Your task to perform on an android device: Google the capital of Canada Image 0: 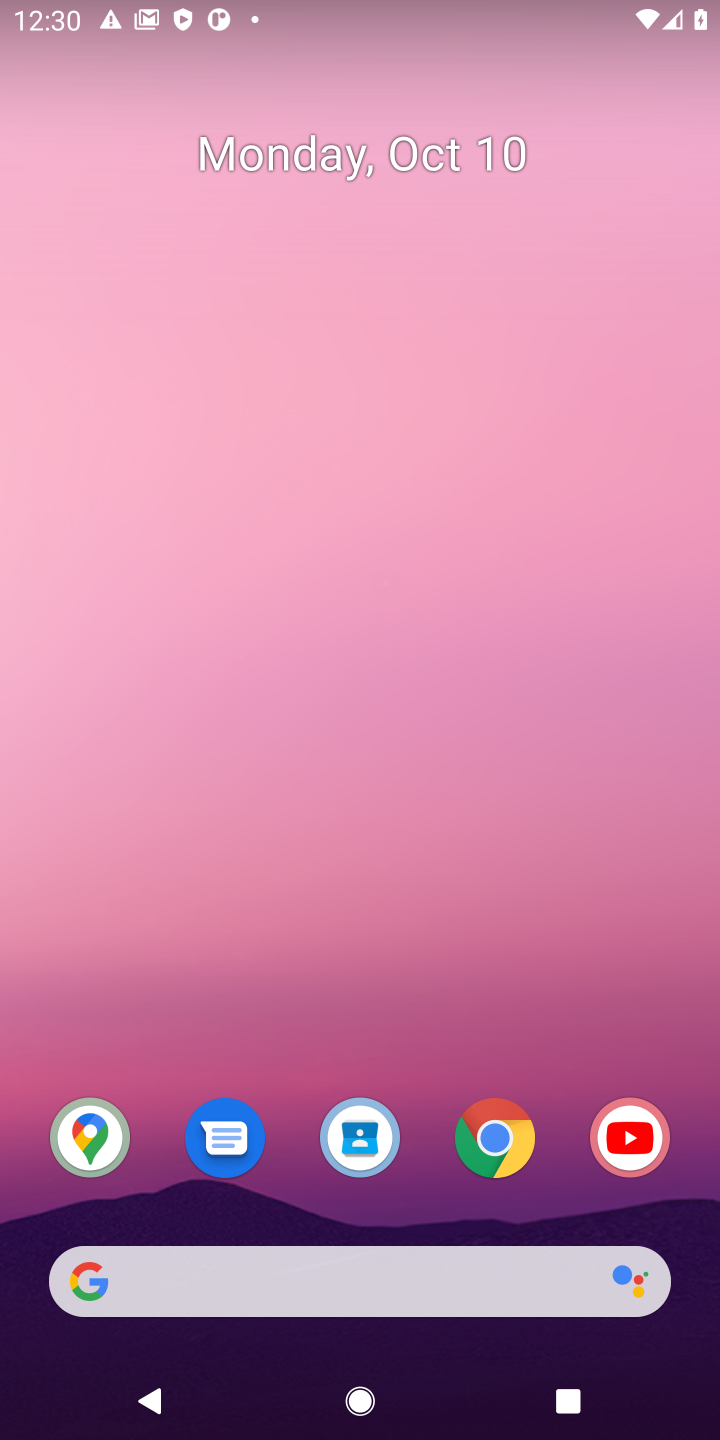
Step 0: click (506, 1168)
Your task to perform on an android device: Google the capital of Canada Image 1: 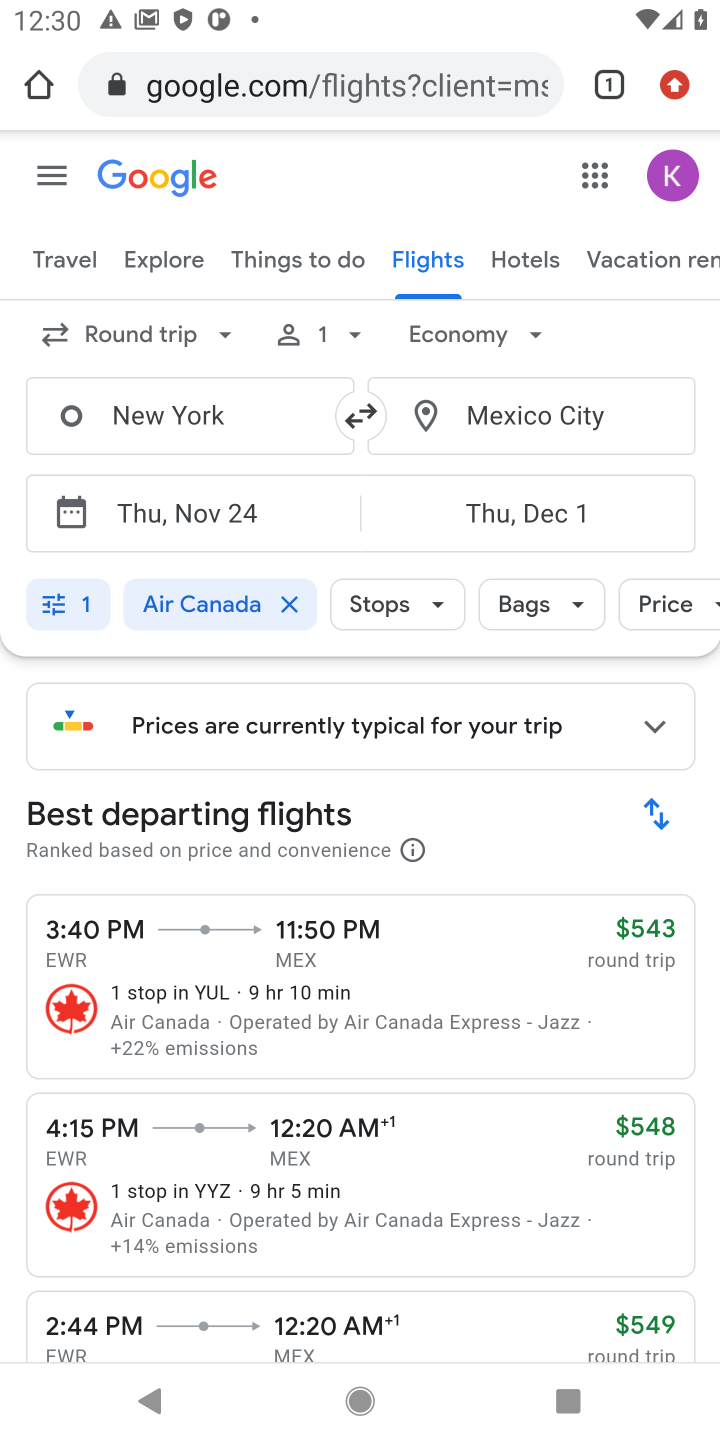
Step 1: click (123, 178)
Your task to perform on an android device: Google the capital of Canada Image 2: 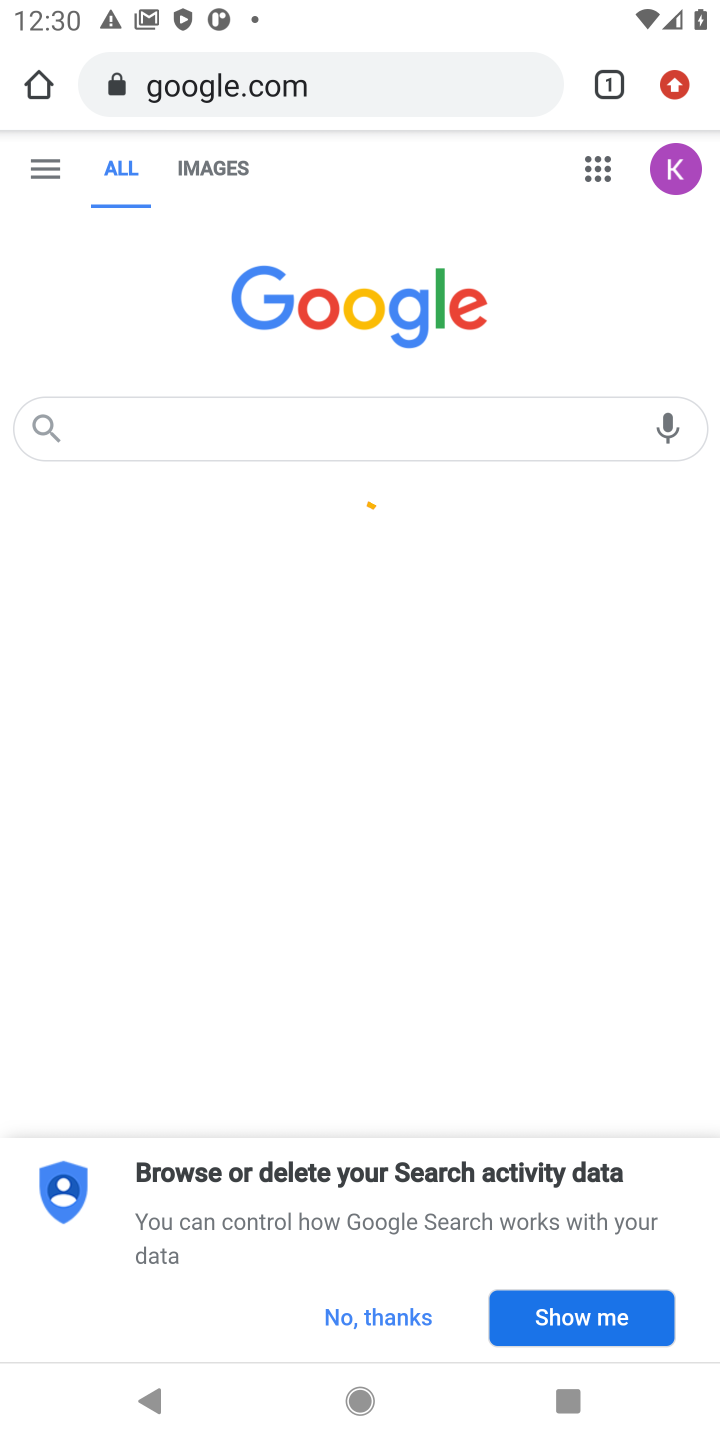
Step 2: click (337, 440)
Your task to perform on an android device: Google the capital of Canada Image 3: 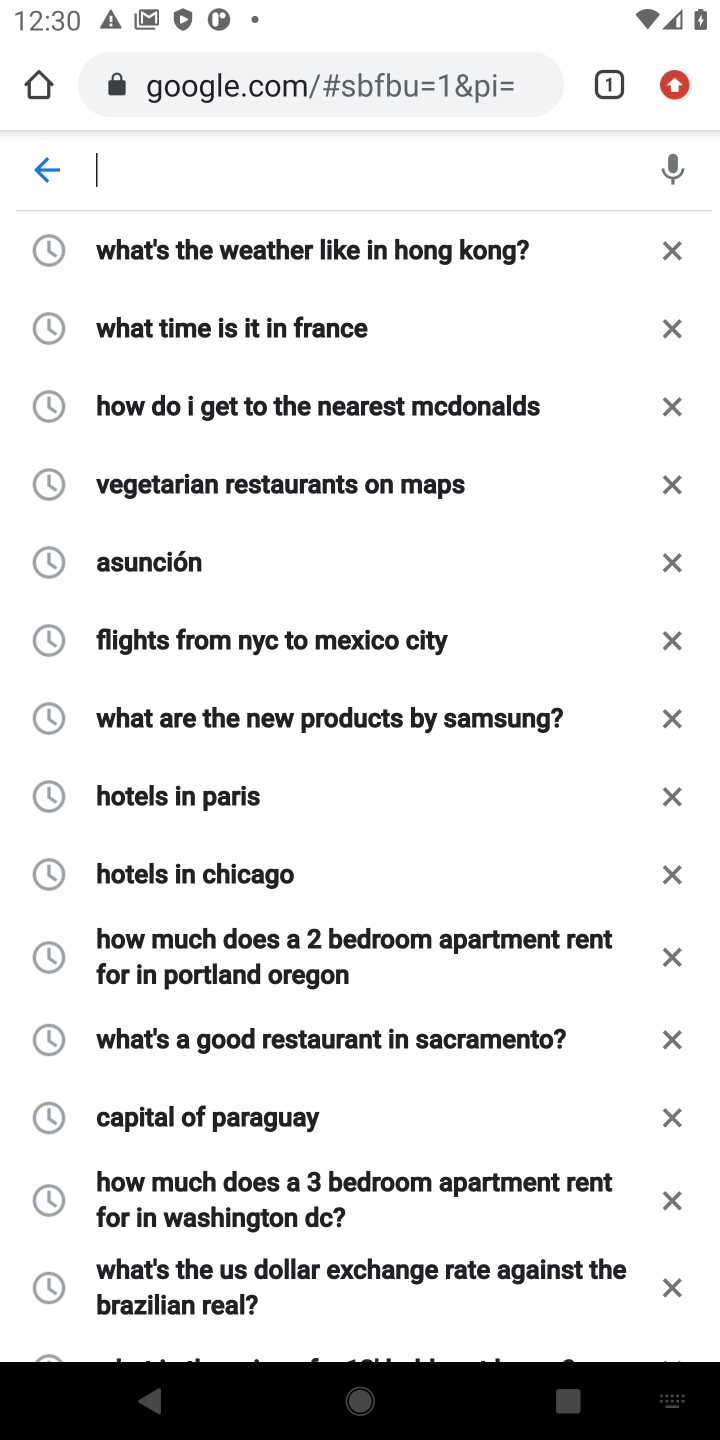
Step 3: type "capital of Canada"
Your task to perform on an android device: Google the capital of Canada Image 4: 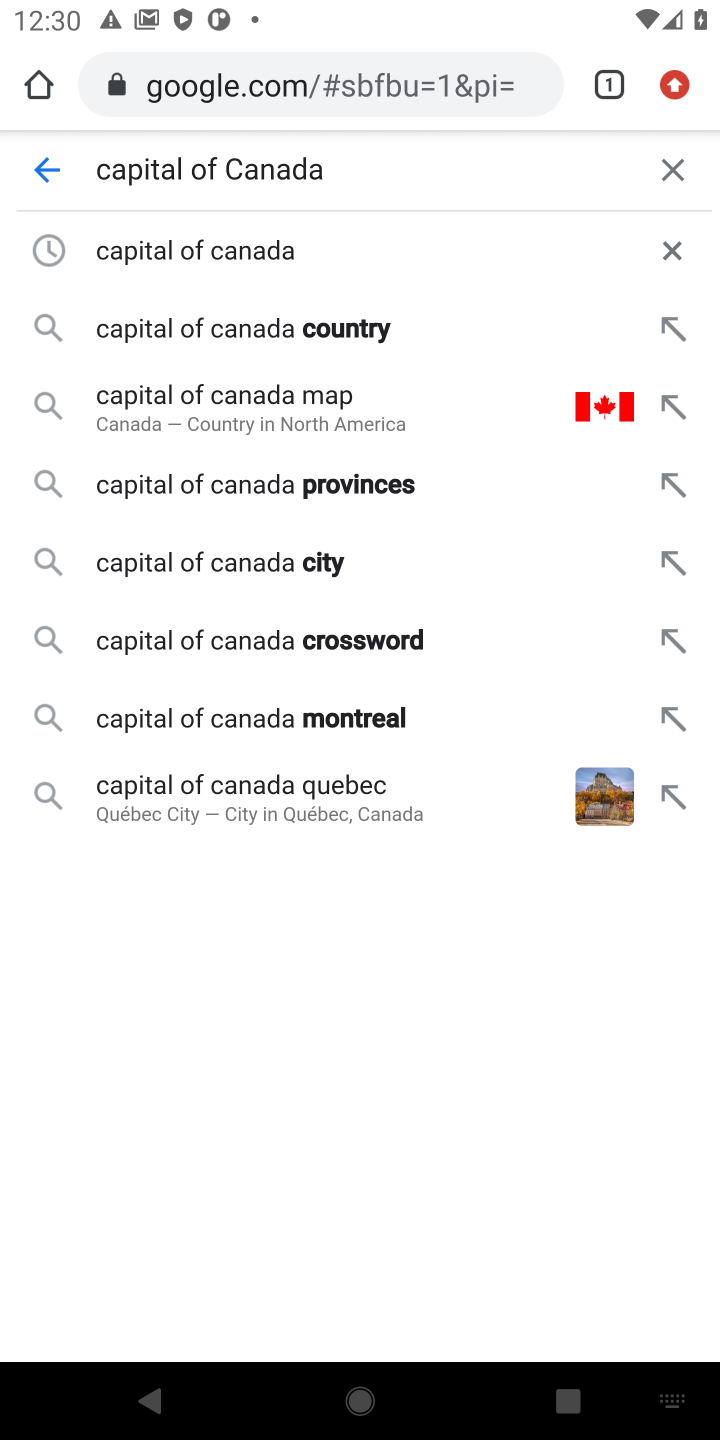
Step 4: click (215, 260)
Your task to perform on an android device: Google the capital of Canada Image 5: 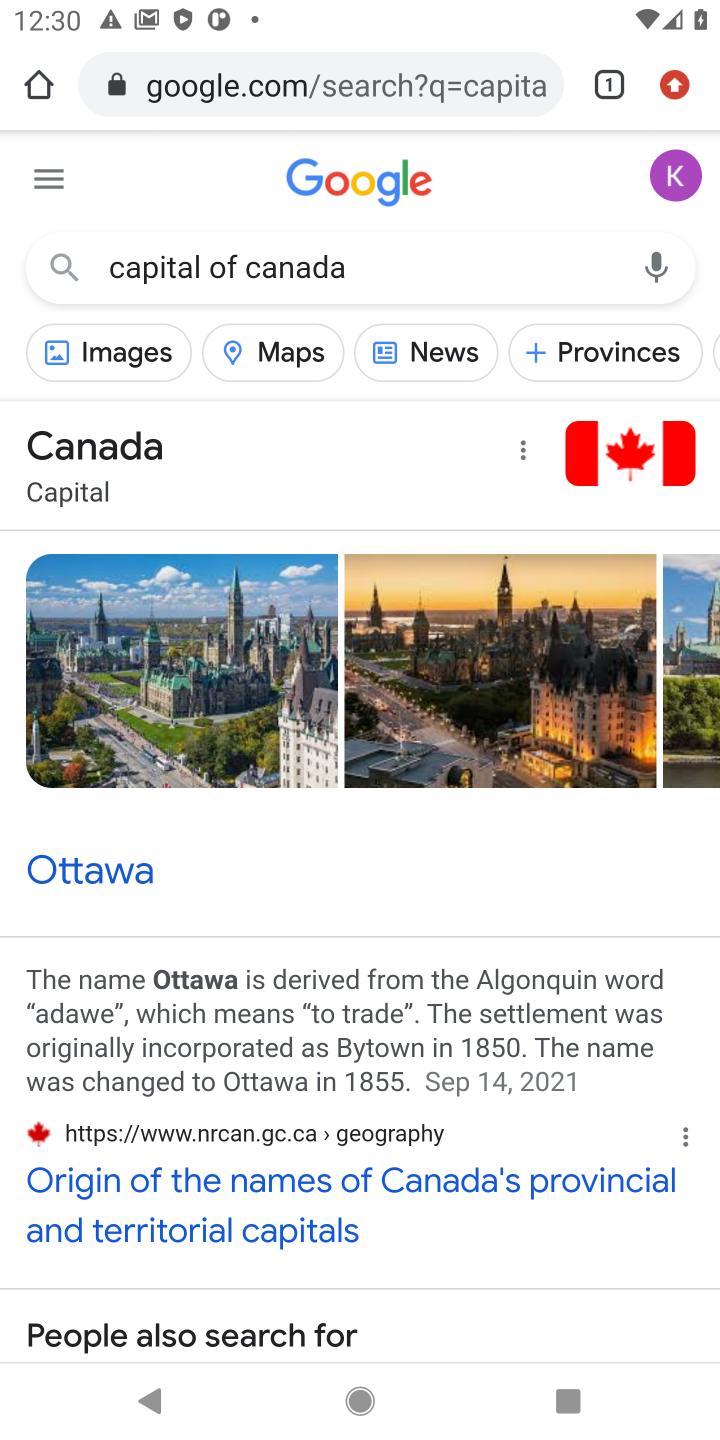
Step 5: task complete